Your task to perform on an android device: refresh tabs in the chrome app Image 0: 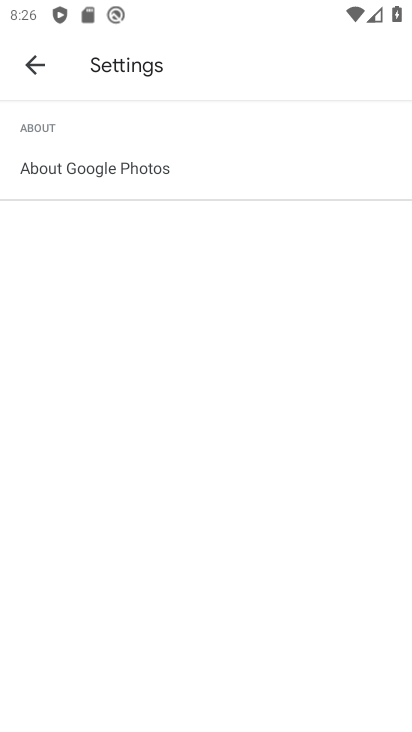
Step 0: click (252, 578)
Your task to perform on an android device: refresh tabs in the chrome app Image 1: 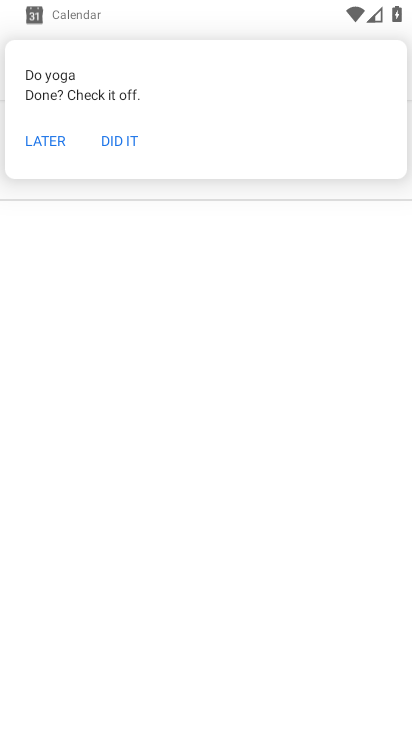
Step 1: press home button
Your task to perform on an android device: refresh tabs in the chrome app Image 2: 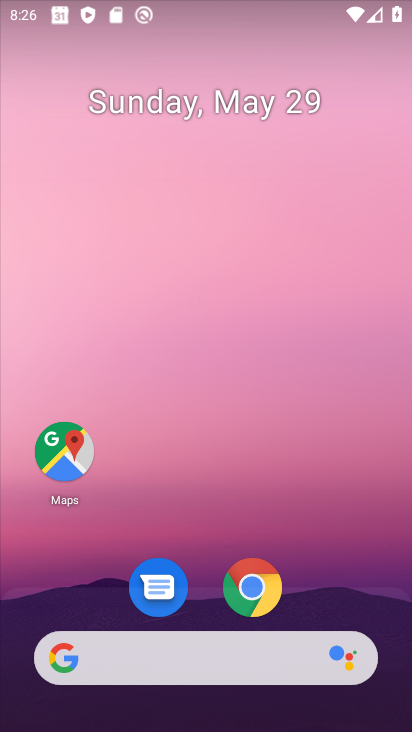
Step 2: click (252, 592)
Your task to perform on an android device: refresh tabs in the chrome app Image 3: 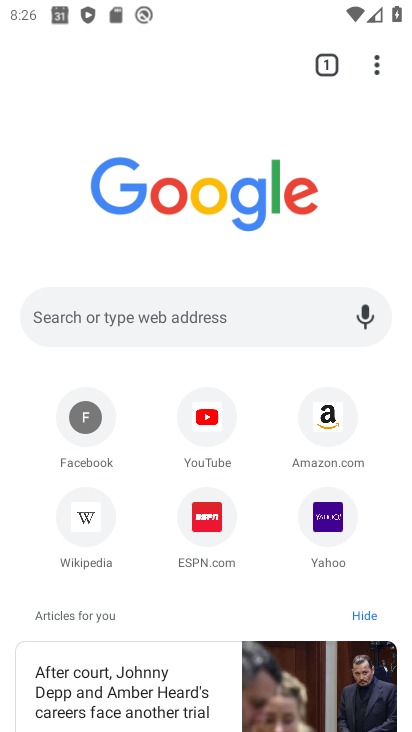
Step 3: click (389, 51)
Your task to perform on an android device: refresh tabs in the chrome app Image 4: 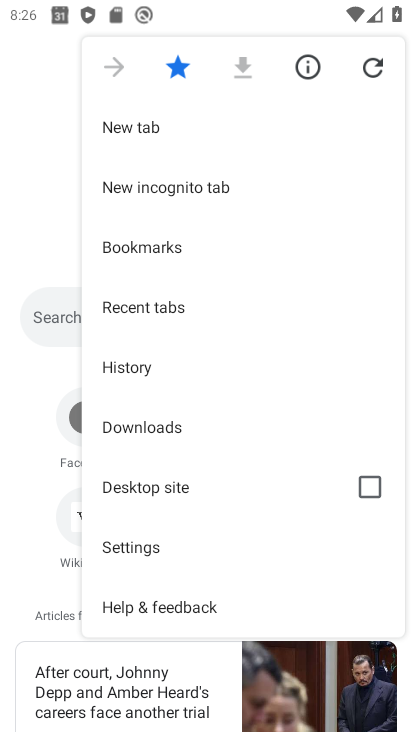
Step 4: click (389, 66)
Your task to perform on an android device: refresh tabs in the chrome app Image 5: 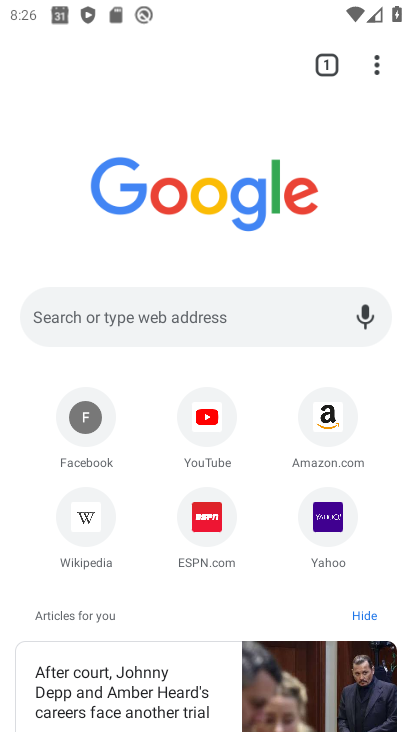
Step 5: task complete